Your task to perform on an android device: Go to internet settings Image 0: 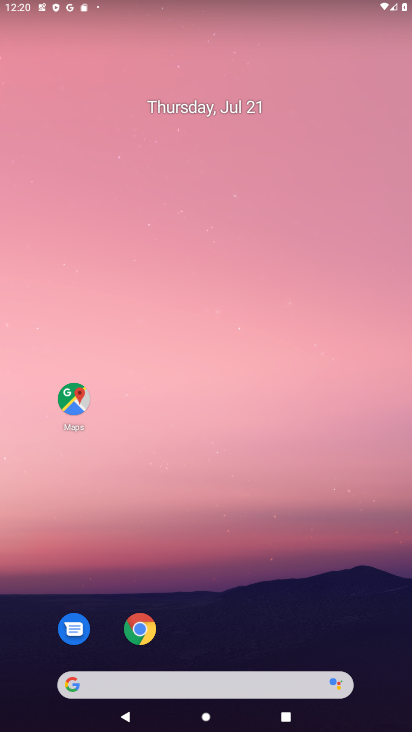
Step 0: drag from (331, 608) to (351, 124)
Your task to perform on an android device: Go to internet settings Image 1: 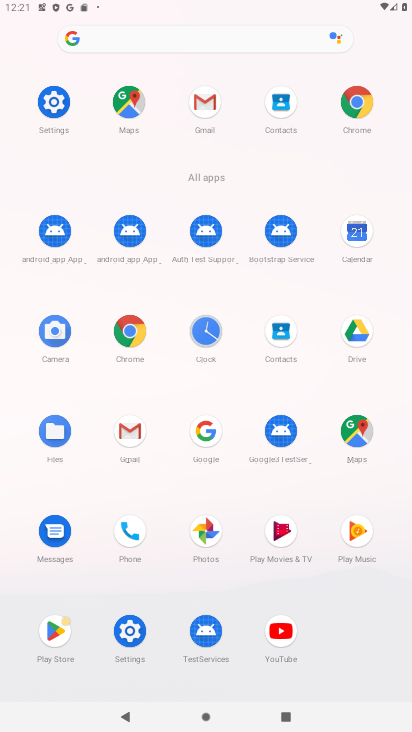
Step 1: click (58, 101)
Your task to perform on an android device: Go to internet settings Image 2: 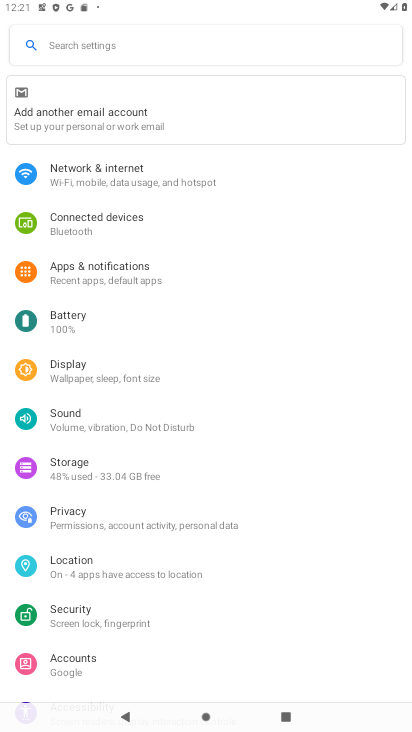
Step 2: drag from (346, 501) to (356, 403)
Your task to perform on an android device: Go to internet settings Image 3: 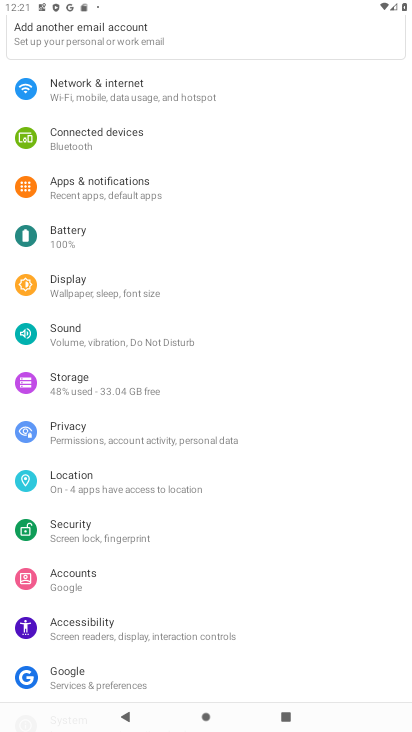
Step 3: drag from (354, 508) to (355, 369)
Your task to perform on an android device: Go to internet settings Image 4: 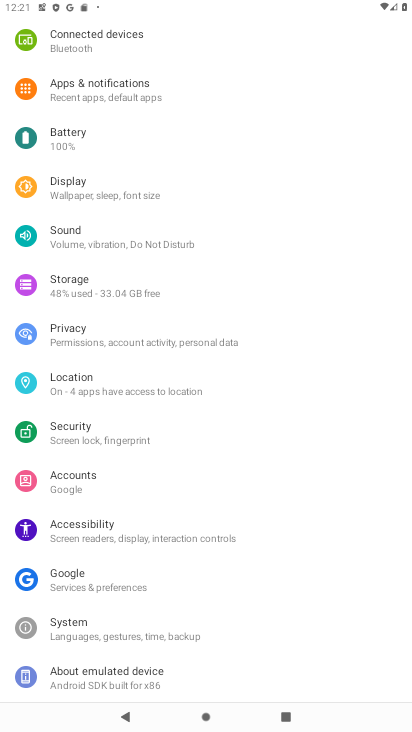
Step 4: drag from (330, 296) to (312, 445)
Your task to perform on an android device: Go to internet settings Image 5: 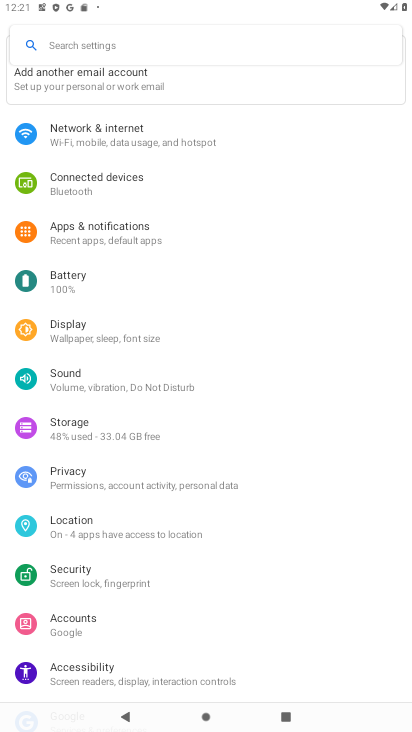
Step 5: drag from (319, 245) to (318, 383)
Your task to perform on an android device: Go to internet settings Image 6: 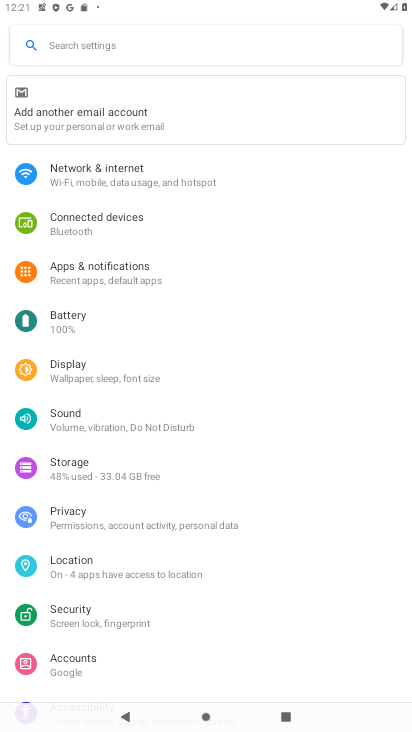
Step 6: click (191, 178)
Your task to perform on an android device: Go to internet settings Image 7: 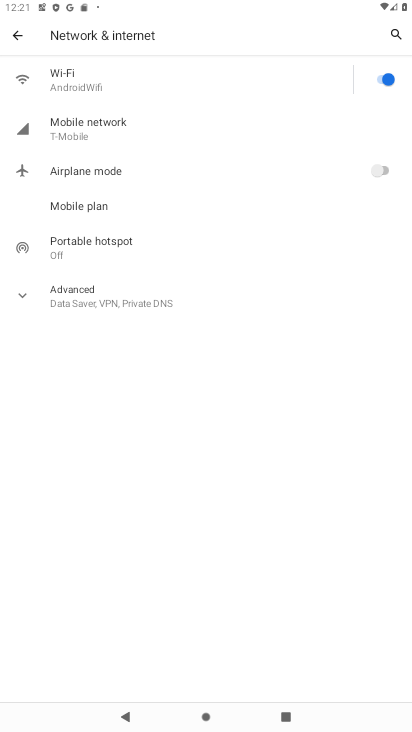
Step 7: task complete